Your task to perform on an android device: Open eBay Image 0: 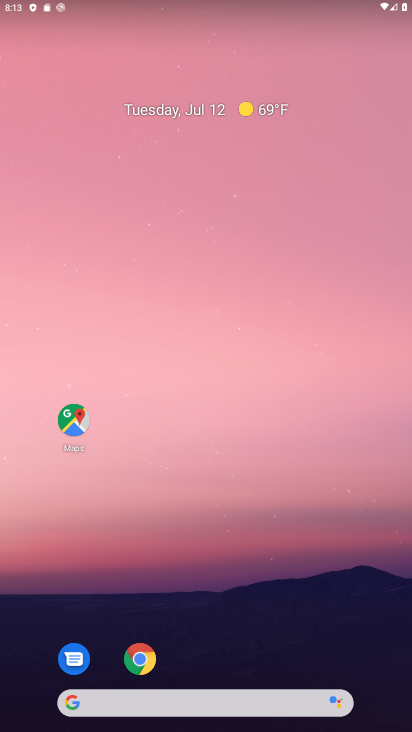
Step 0: click (146, 651)
Your task to perform on an android device: Open eBay Image 1: 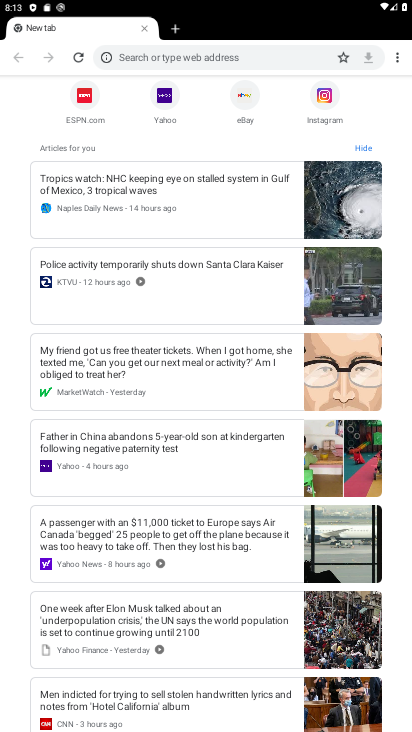
Step 1: click (250, 102)
Your task to perform on an android device: Open eBay Image 2: 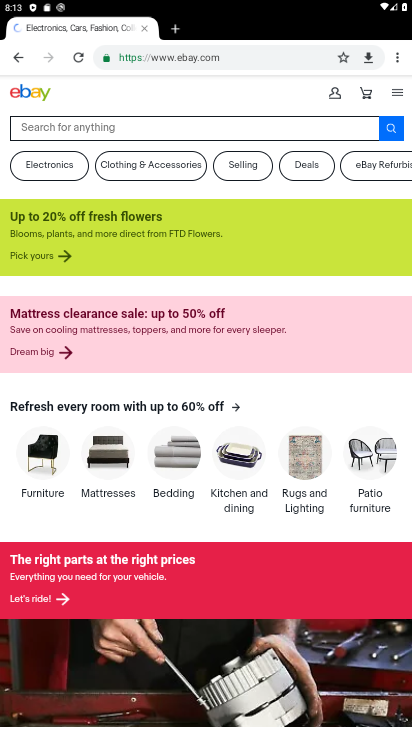
Step 2: task complete